Your task to perform on an android device: change the clock display to digital Image 0: 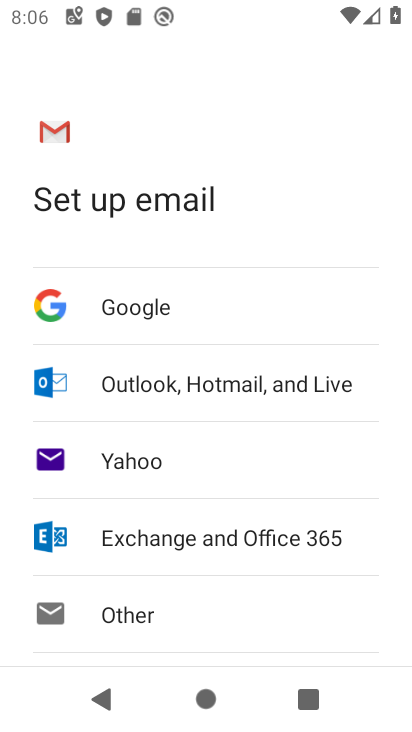
Step 0: press home button
Your task to perform on an android device: change the clock display to digital Image 1: 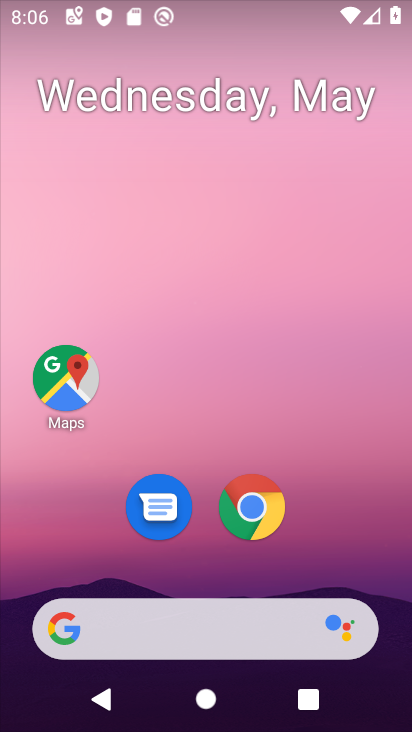
Step 1: drag from (322, 562) to (325, 137)
Your task to perform on an android device: change the clock display to digital Image 2: 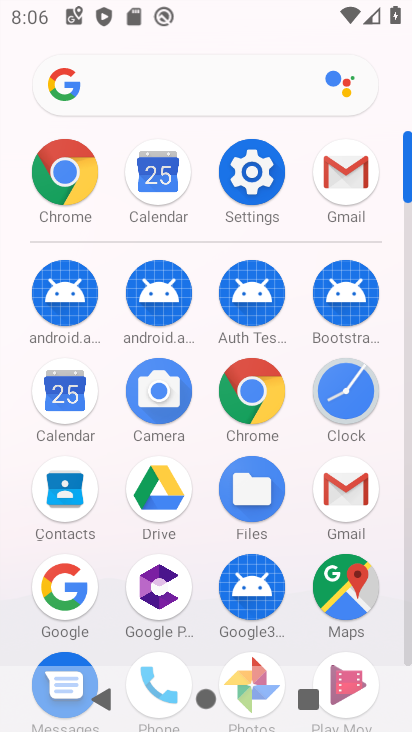
Step 2: click (331, 392)
Your task to perform on an android device: change the clock display to digital Image 3: 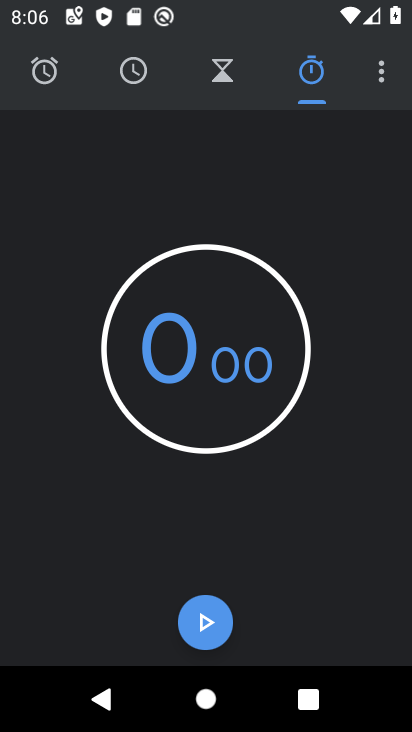
Step 3: click (367, 71)
Your task to perform on an android device: change the clock display to digital Image 4: 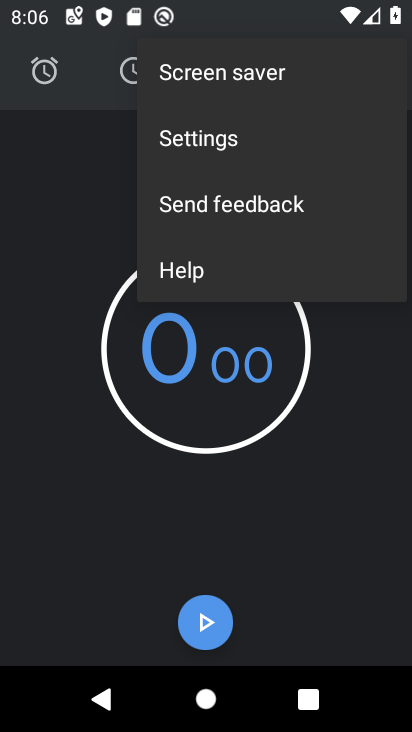
Step 4: click (223, 132)
Your task to perform on an android device: change the clock display to digital Image 5: 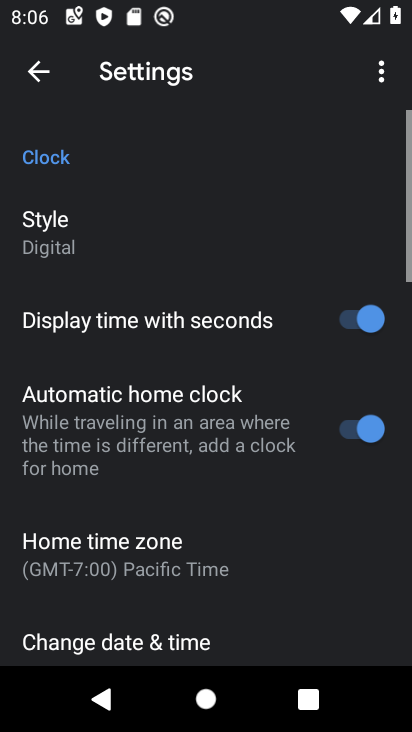
Step 5: click (78, 219)
Your task to perform on an android device: change the clock display to digital Image 6: 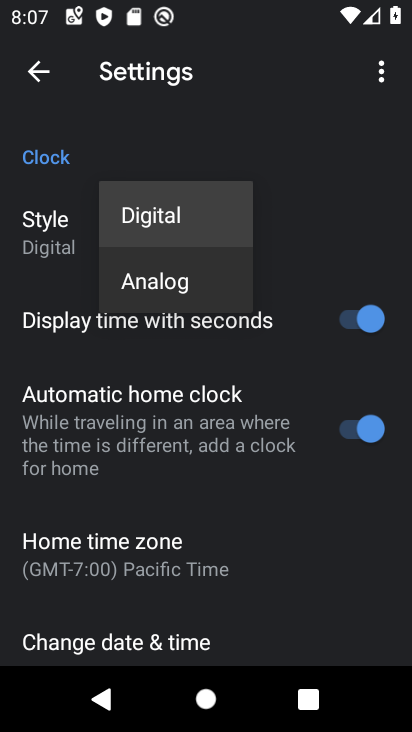
Step 6: click (163, 202)
Your task to perform on an android device: change the clock display to digital Image 7: 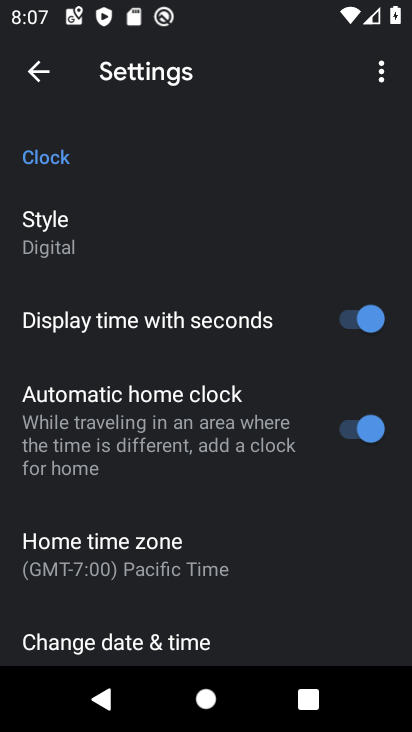
Step 7: task complete